Your task to perform on an android device: turn off airplane mode Image 0: 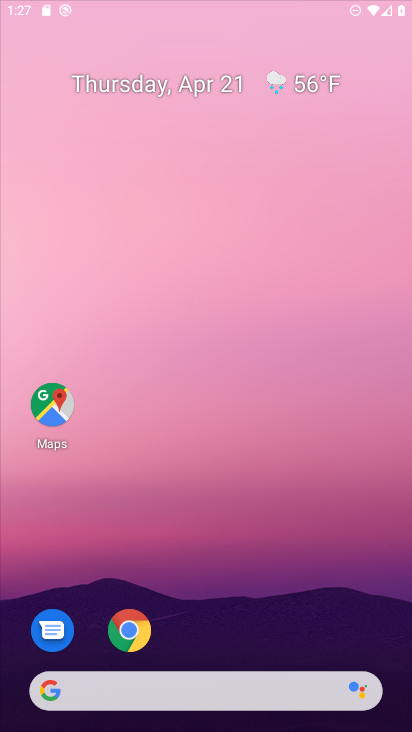
Step 0: click (189, 164)
Your task to perform on an android device: turn off airplane mode Image 1: 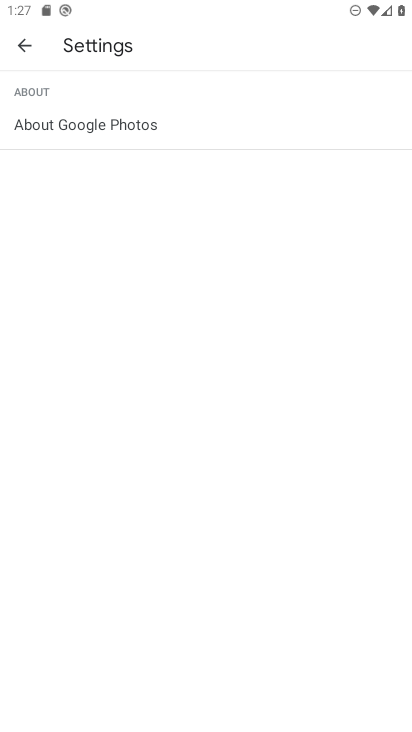
Step 1: press home button
Your task to perform on an android device: turn off airplane mode Image 2: 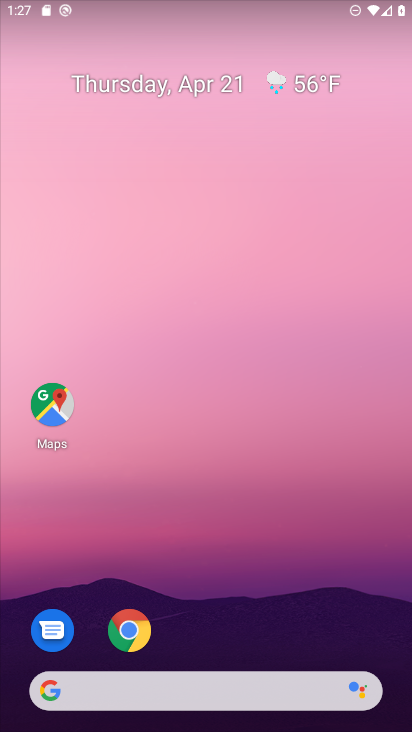
Step 2: drag from (205, 644) to (229, 96)
Your task to perform on an android device: turn off airplane mode Image 3: 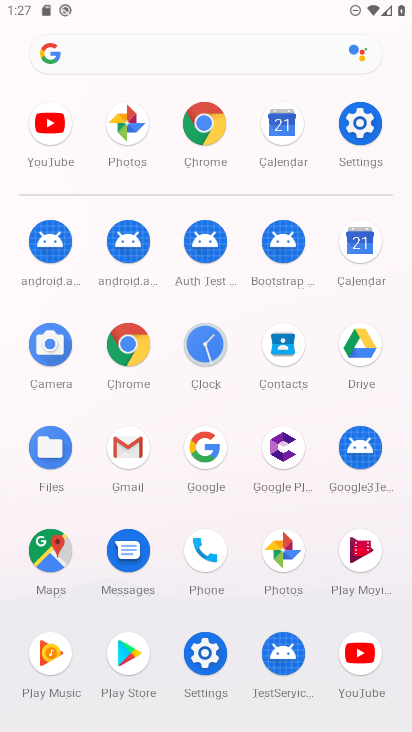
Step 3: click (357, 142)
Your task to perform on an android device: turn off airplane mode Image 4: 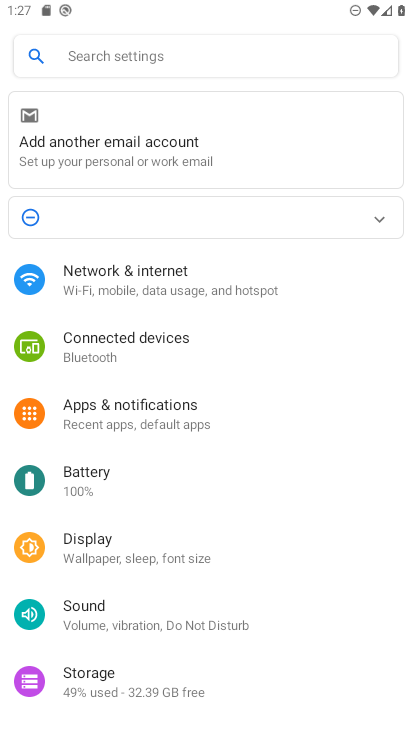
Step 4: click (188, 268)
Your task to perform on an android device: turn off airplane mode Image 5: 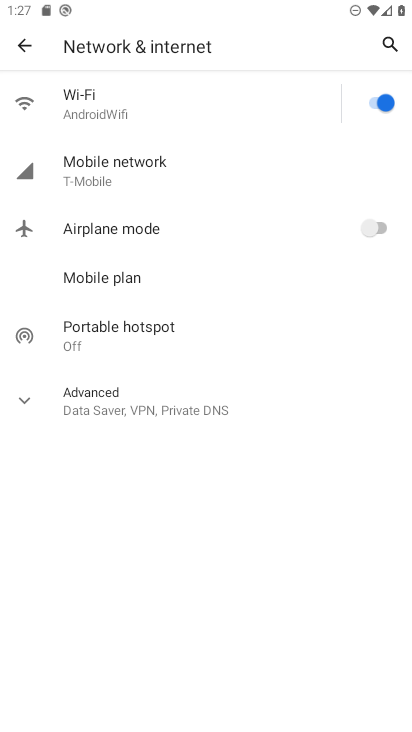
Step 5: task complete